Your task to perform on an android device: open app "TextNow: Call + Text Unlimited" Image 0: 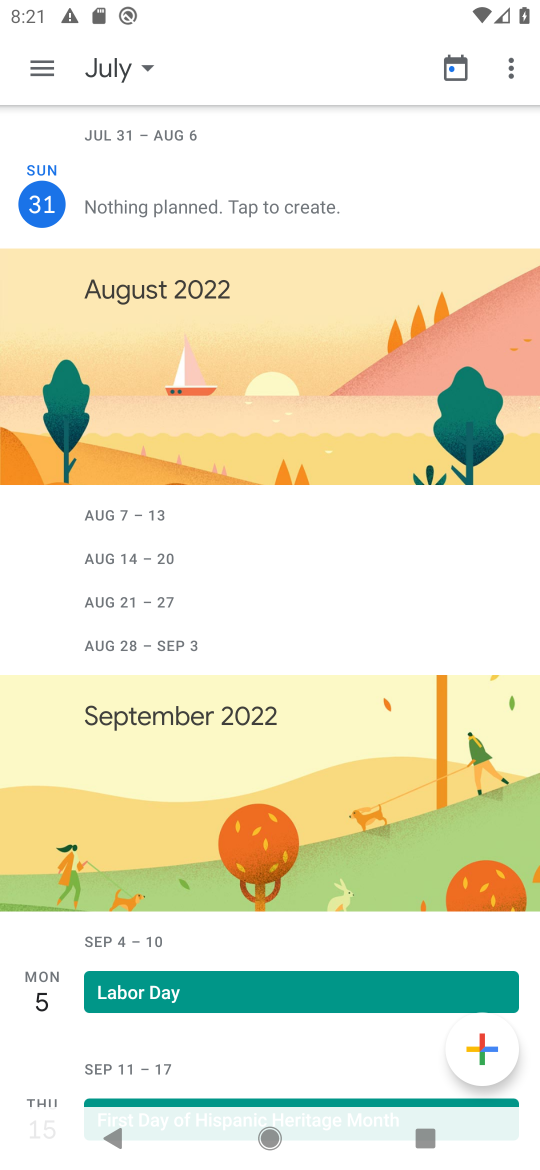
Step 0: press home button
Your task to perform on an android device: open app "TextNow: Call + Text Unlimited" Image 1: 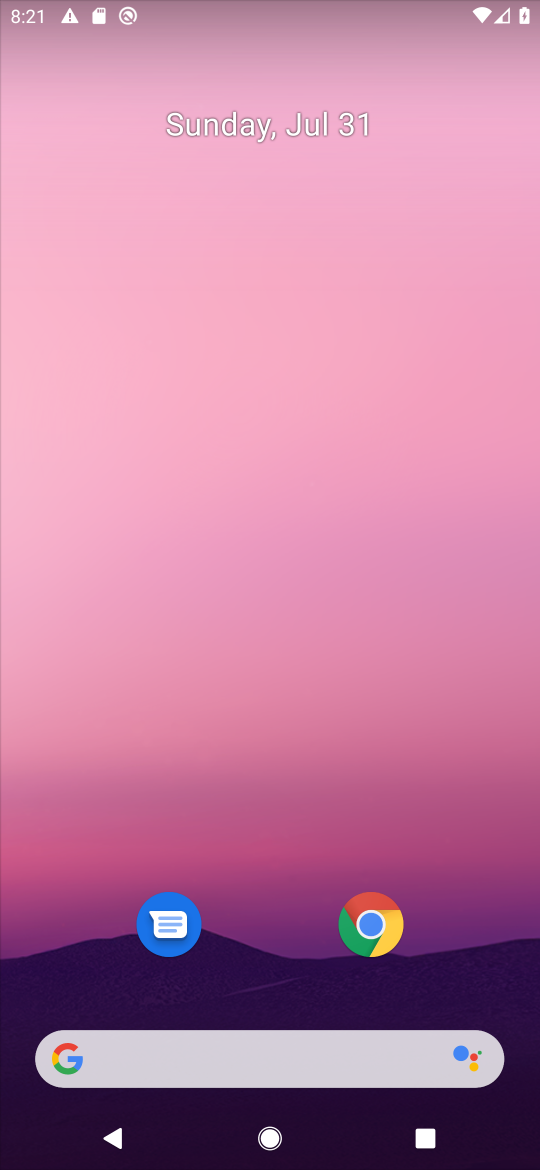
Step 1: drag from (233, 1028) to (281, 380)
Your task to perform on an android device: open app "TextNow: Call + Text Unlimited" Image 2: 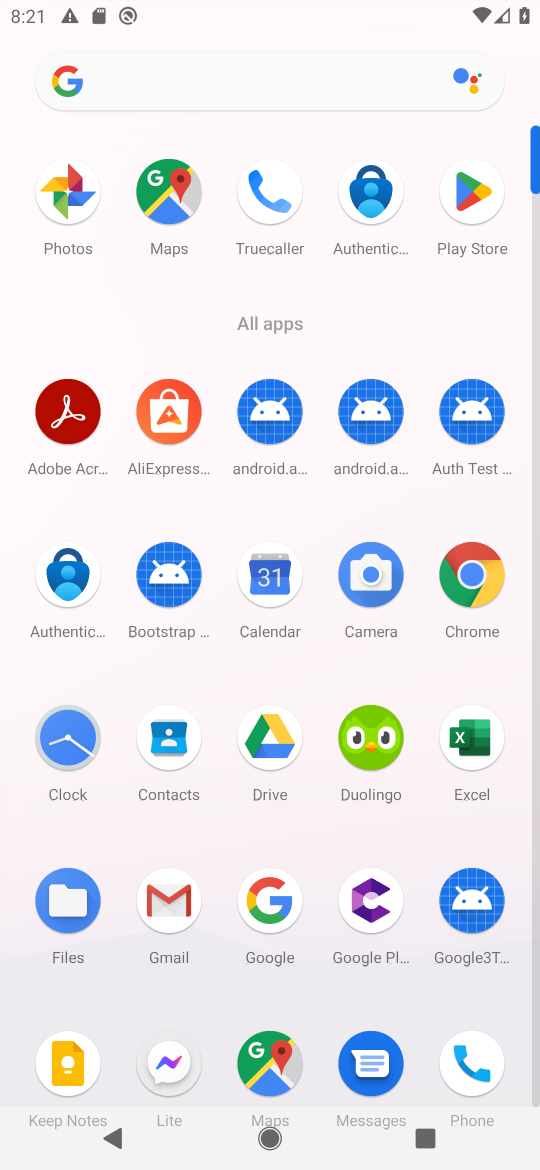
Step 2: click (468, 200)
Your task to perform on an android device: open app "TextNow: Call + Text Unlimited" Image 3: 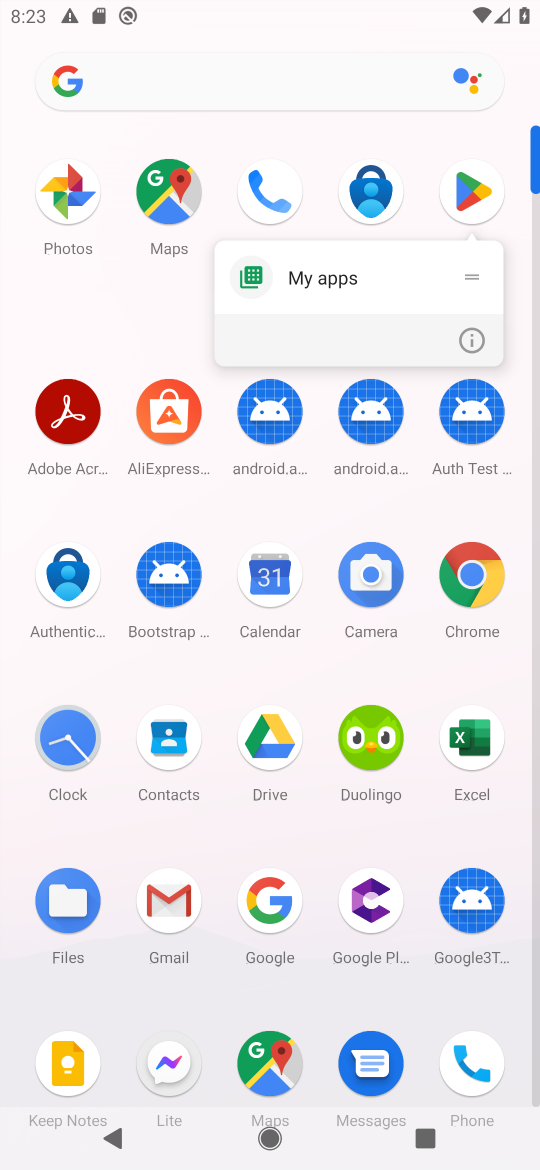
Step 3: click (475, 204)
Your task to perform on an android device: open app "TextNow: Call + Text Unlimited" Image 4: 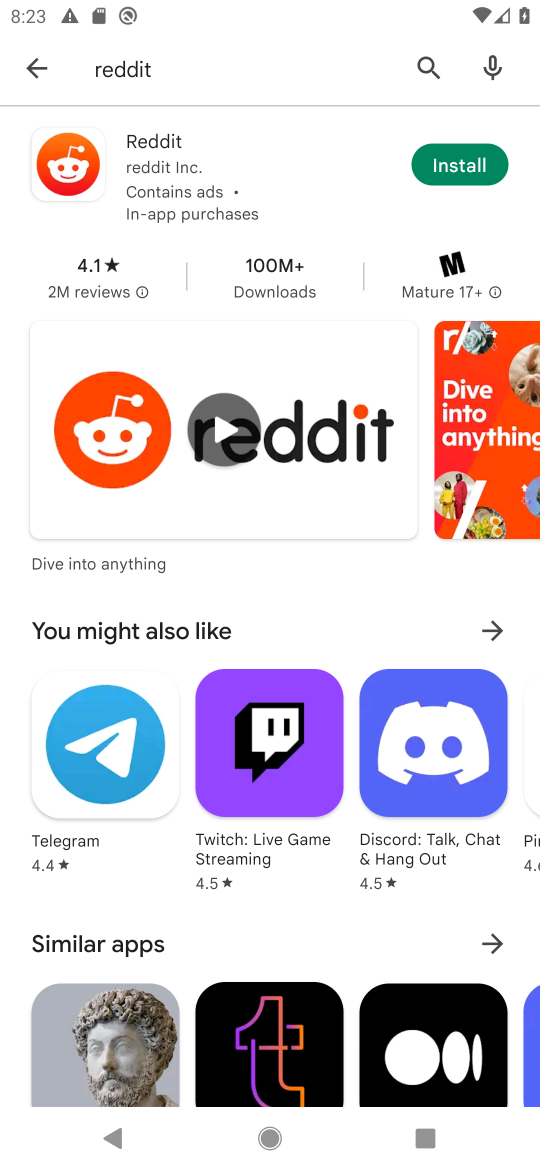
Step 4: click (26, 67)
Your task to perform on an android device: open app "TextNow: Call + Text Unlimited" Image 5: 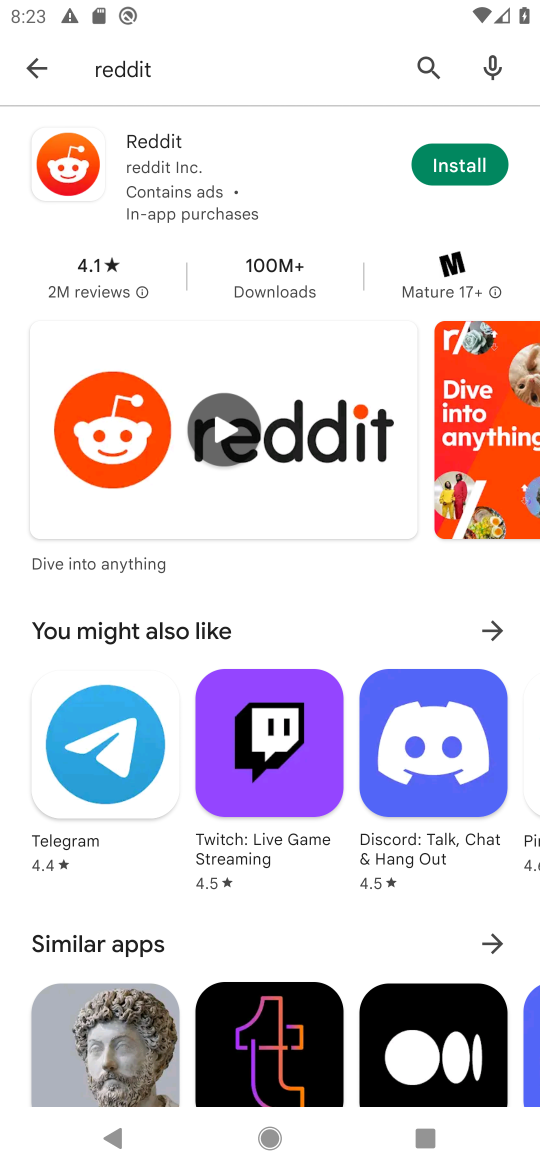
Step 5: click (39, 71)
Your task to perform on an android device: open app "TextNow: Call + Text Unlimited" Image 6: 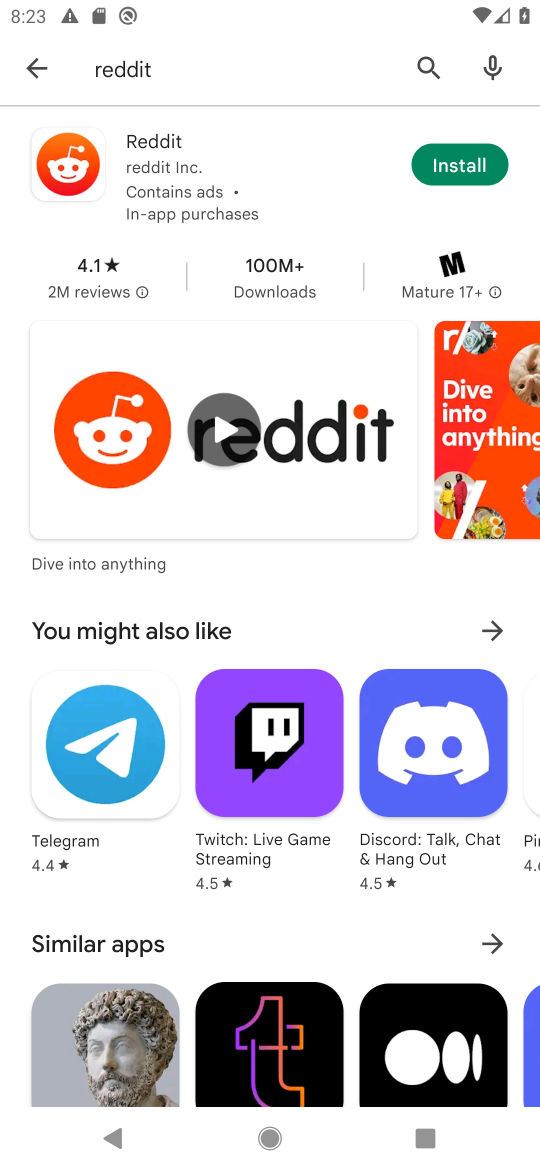
Step 6: click (429, 72)
Your task to perform on an android device: open app "TextNow: Call + Text Unlimited" Image 7: 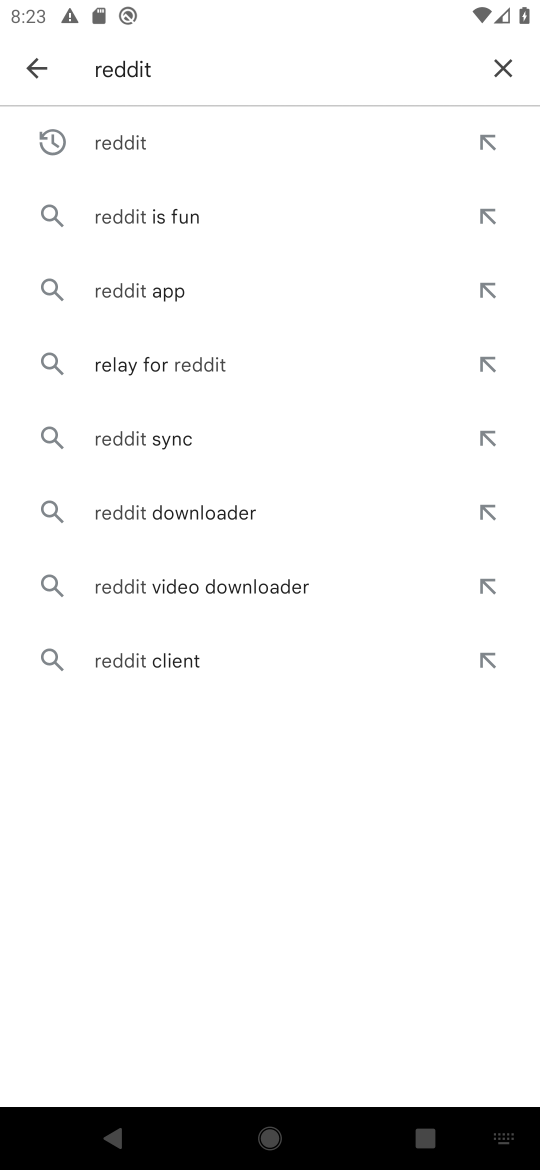
Step 7: click (499, 79)
Your task to perform on an android device: open app "TextNow: Call + Text Unlimited" Image 8: 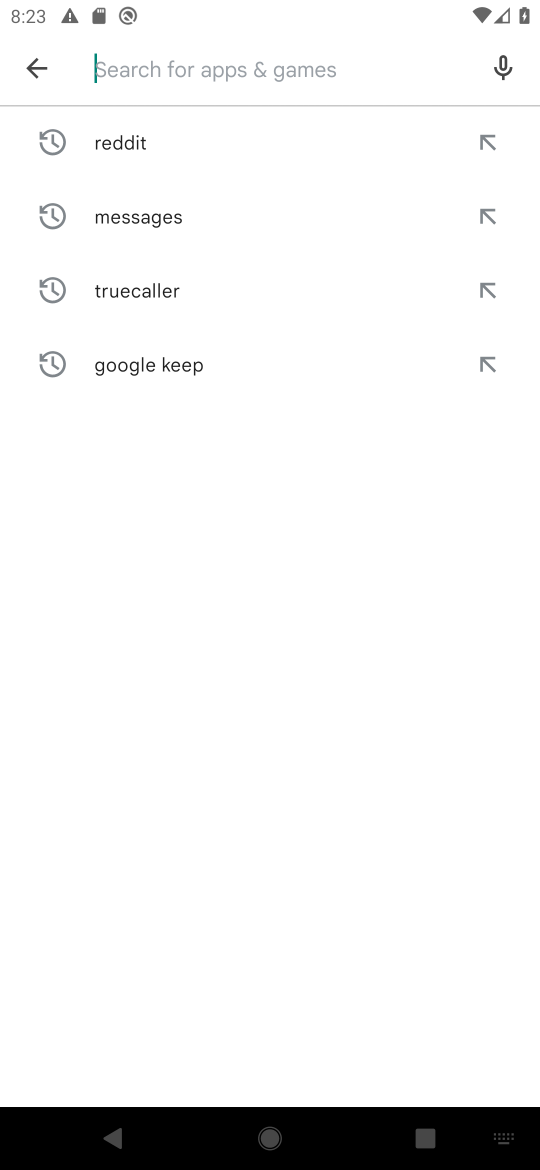
Step 8: type "TextNow: Call + Text Unlimited"
Your task to perform on an android device: open app "TextNow: Call + Text Unlimited" Image 9: 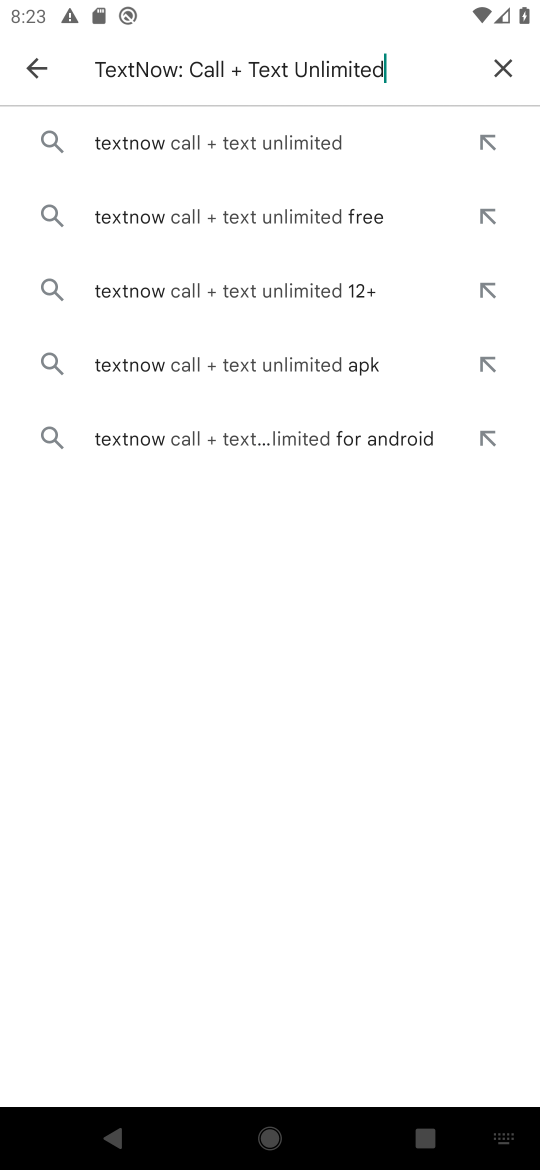
Step 9: click (229, 134)
Your task to perform on an android device: open app "TextNow: Call + Text Unlimited" Image 10: 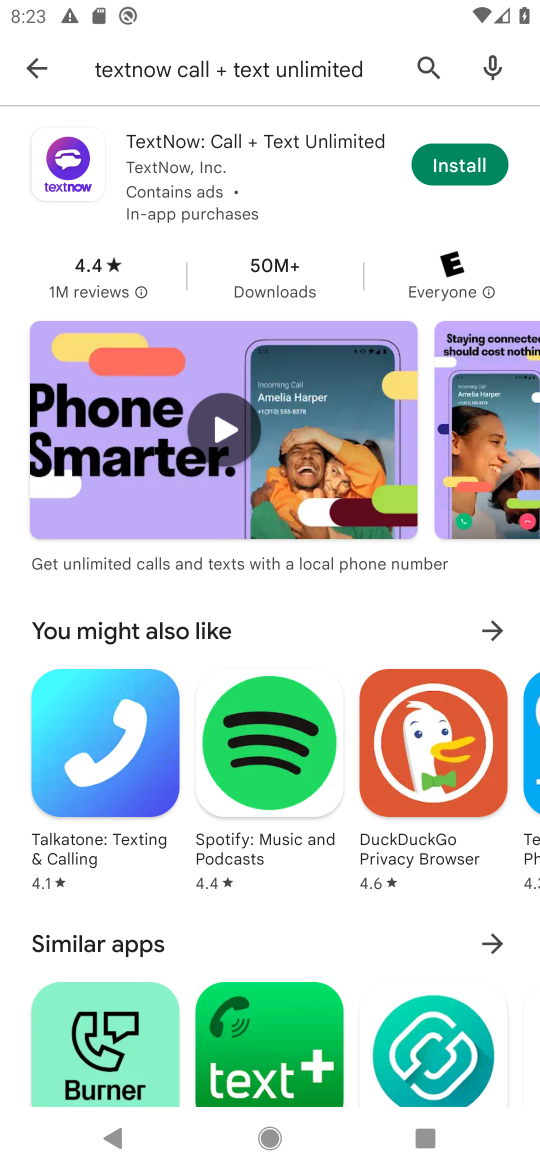
Step 10: task complete